Your task to perform on an android device: Open Google Chrome and open the bookmarks view Image 0: 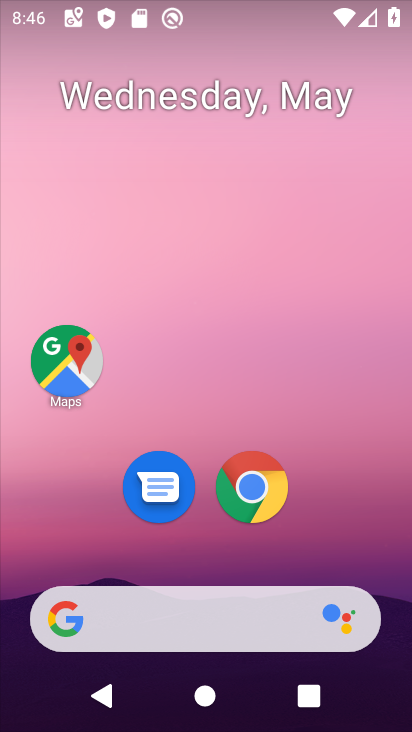
Step 0: click (248, 495)
Your task to perform on an android device: Open Google Chrome and open the bookmarks view Image 1: 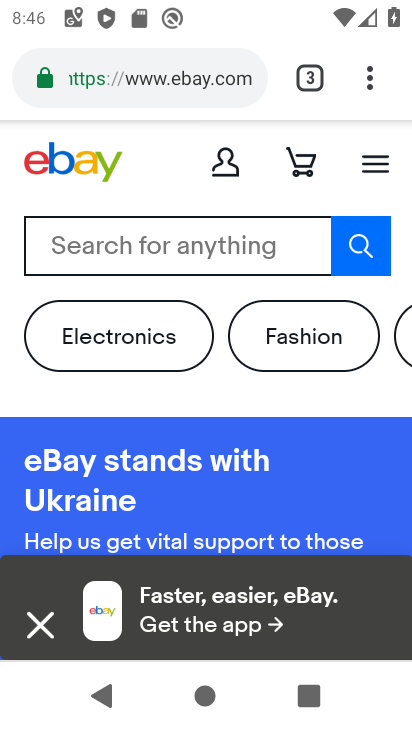
Step 1: click (366, 82)
Your task to perform on an android device: Open Google Chrome and open the bookmarks view Image 2: 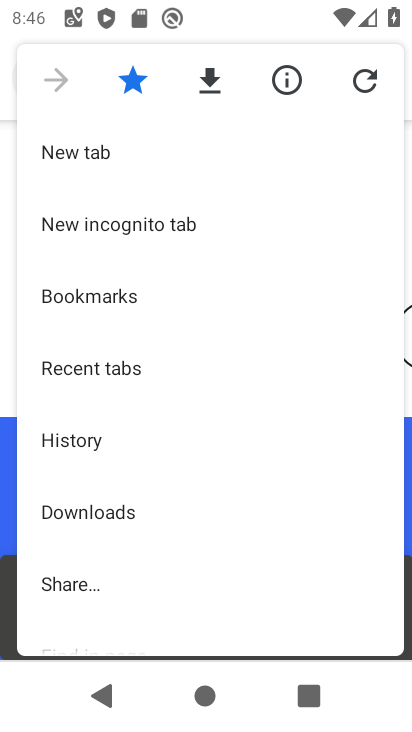
Step 2: click (87, 291)
Your task to perform on an android device: Open Google Chrome and open the bookmarks view Image 3: 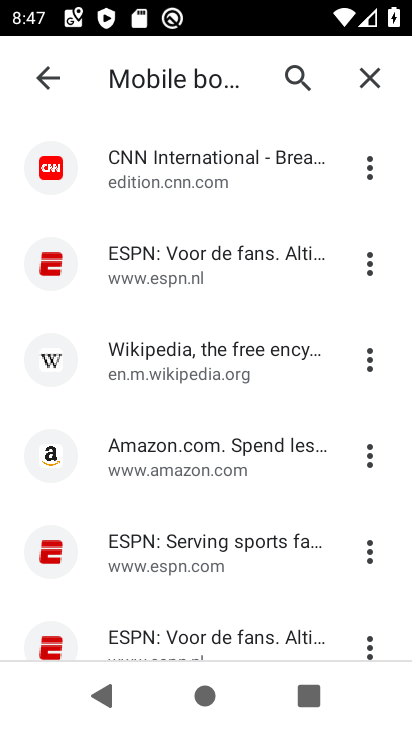
Step 3: click (366, 167)
Your task to perform on an android device: Open Google Chrome and open the bookmarks view Image 4: 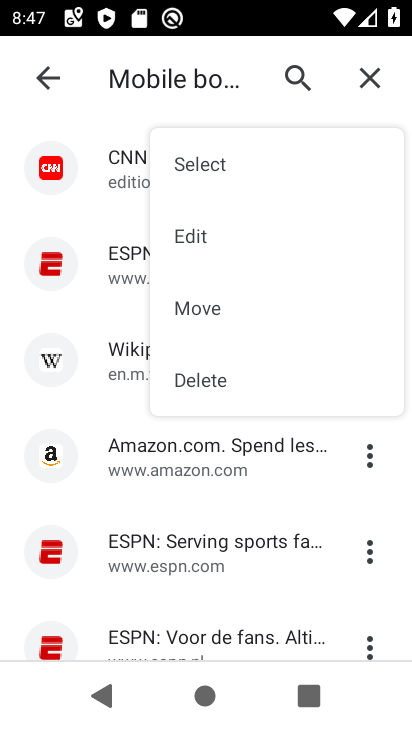
Step 4: click (197, 223)
Your task to perform on an android device: Open Google Chrome and open the bookmarks view Image 5: 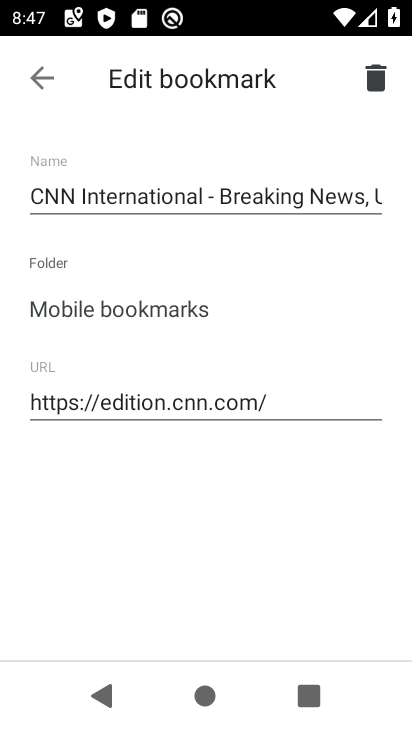
Step 5: task complete